Your task to perform on an android device: turn on the 12-hour format for clock Image 0: 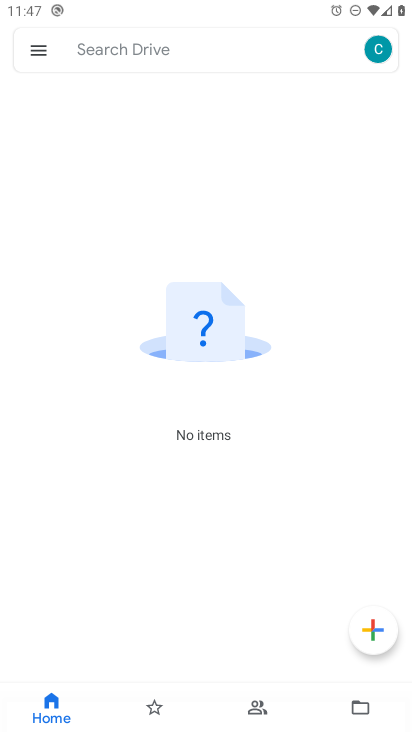
Step 0: press home button
Your task to perform on an android device: turn on the 12-hour format for clock Image 1: 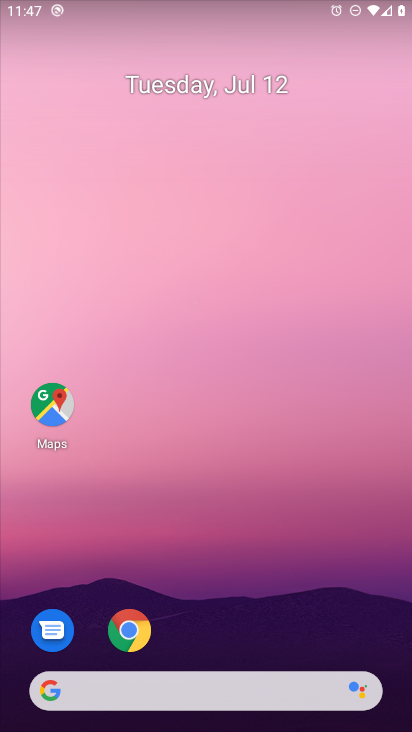
Step 1: drag from (297, 592) to (318, 43)
Your task to perform on an android device: turn on the 12-hour format for clock Image 2: 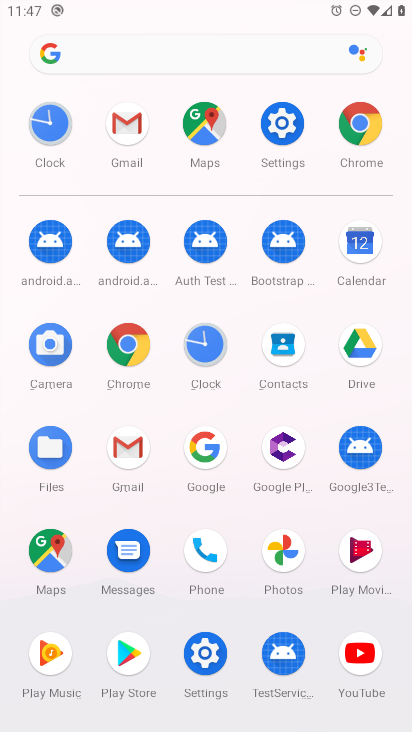
Step 2: click (206, 347)
Your task to perform on an android device: turn on the 12-hour format for clock Image 3: 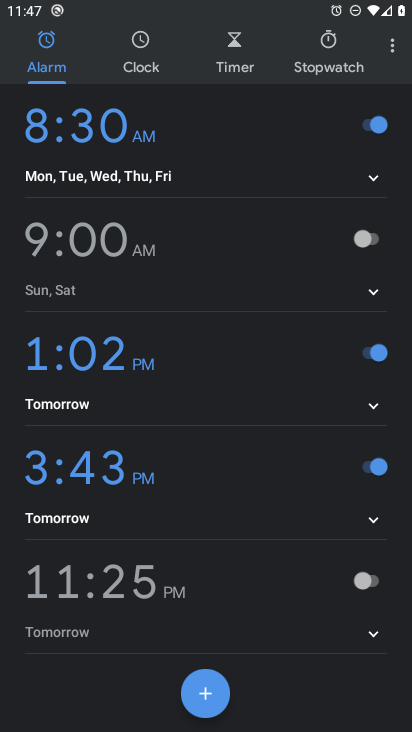
Step 3: click (395, 52)
Your task to perform on an android device: turn on the 12-hour format for clock Image 4: 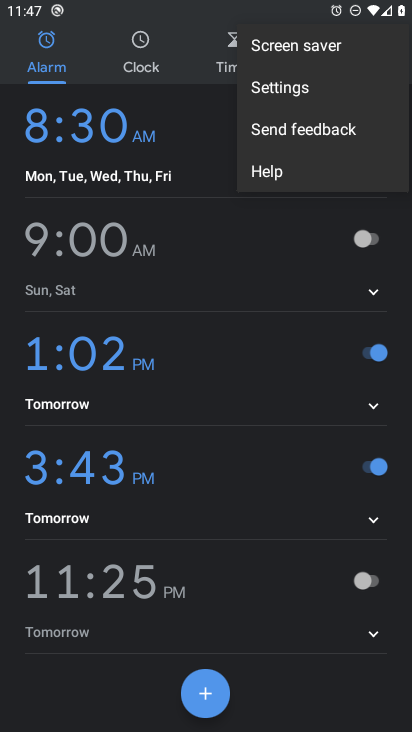
Step 4: click (306, 93)
Your task to perform on an android device: turn on the 12-hour format for clock Image 5: 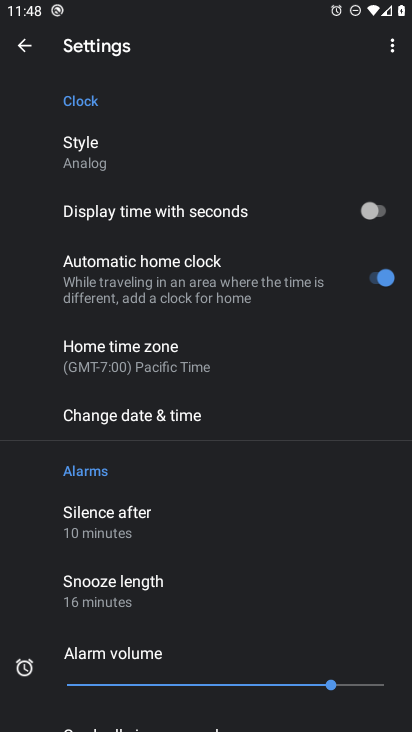
Step 5: click (155, 411)
Your task to perform on an android device: turn on the 12-hour format for clock Image 6: 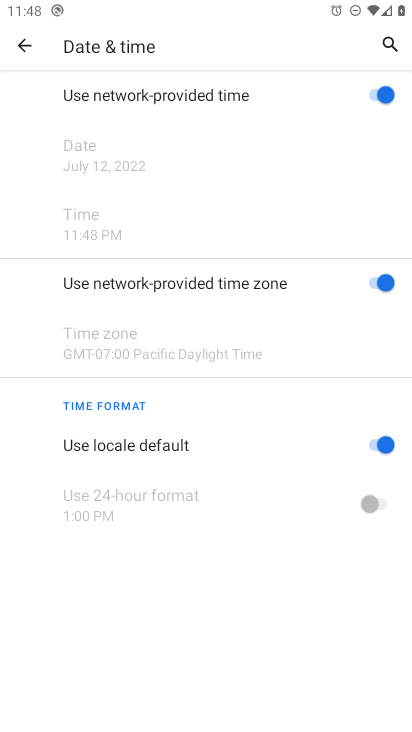
Step 6: task complete